Your task to perform on an android device: open wifi settings Image 0: 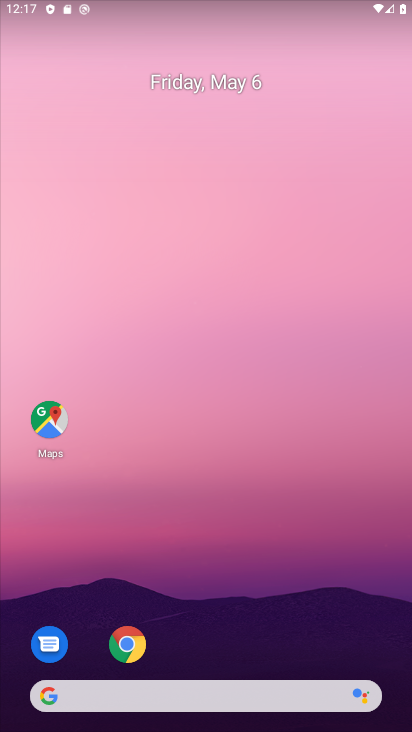
Step 0: drag from (270, 694) to (291, 1)
Your task to perform on an android device: open wifi settings Image 1: 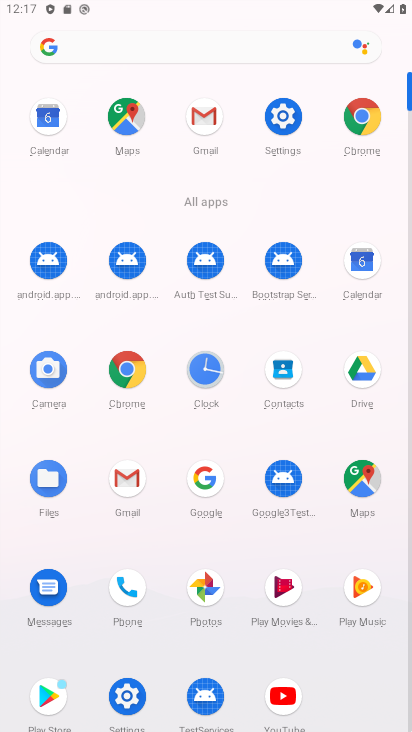
Step 1: click (287, 109)
Your task to perform on an android device: open wifi settings Image 2: 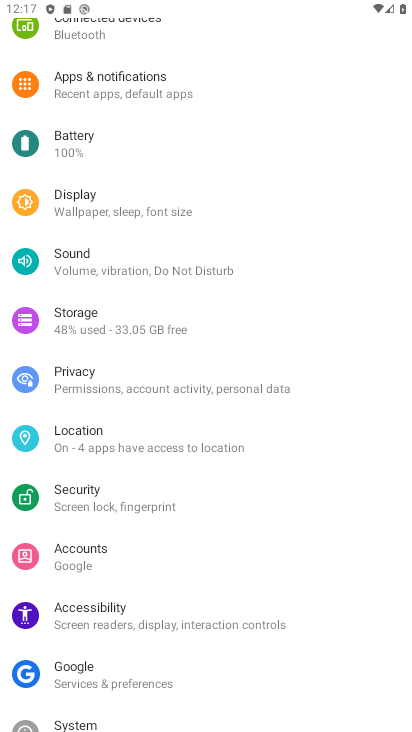
Step 2: drag from (185, 120) to (100, 466)
Your task to perform on an android device: open wifi settings Image 3: 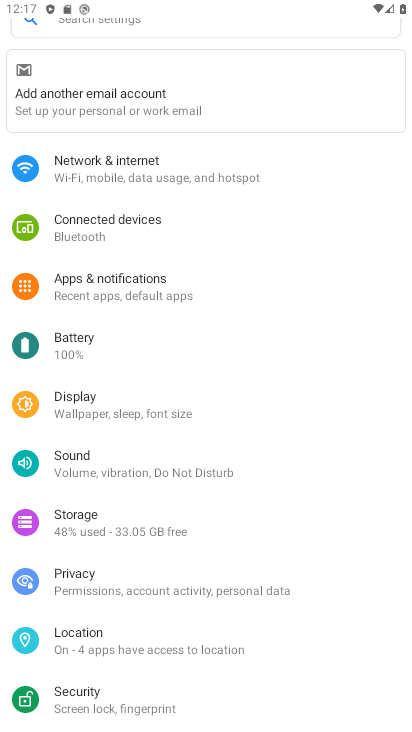
Step 3: click (101, 179)
Your task to perform on an android device: open wifi settings Image 4: 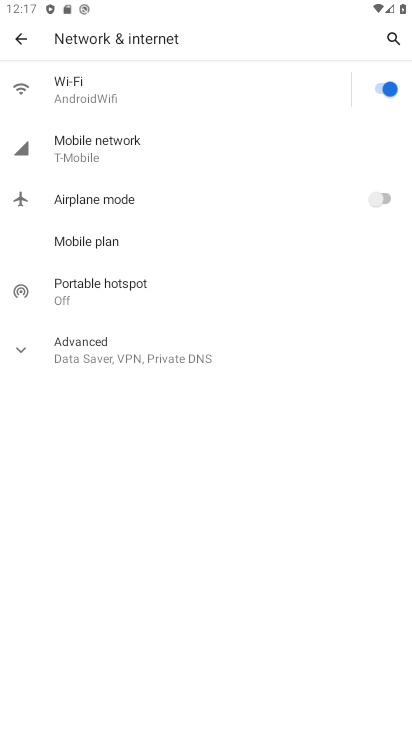
Step 4: click (96, 91)
Your task to perform on an android device: open wifi settings Image 5: 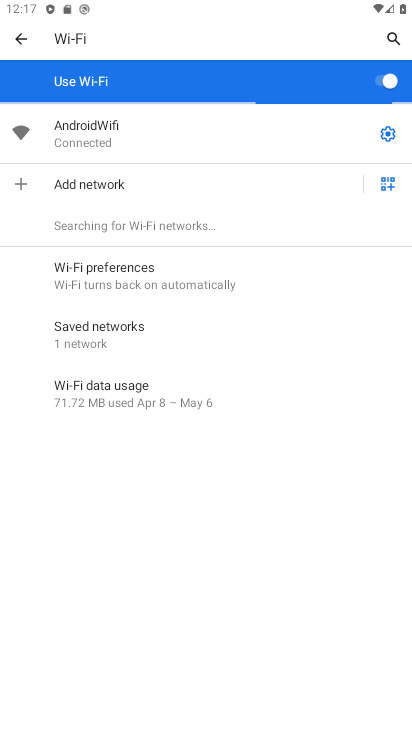
Step 5: task complete